Your task to perform on an android device: open a bookmark in the chrome app Image 0: 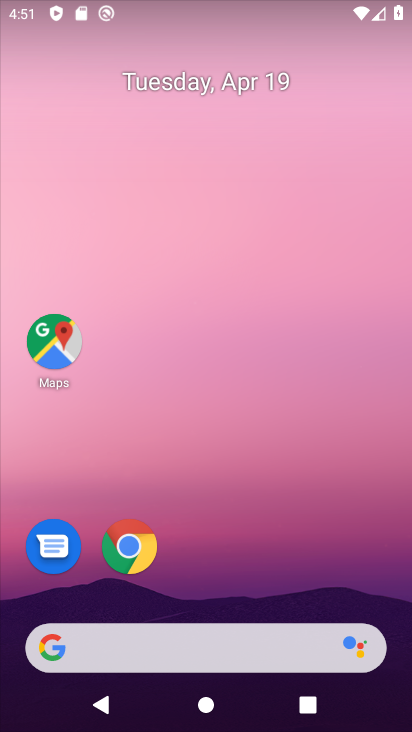
Step 0: drag from (276, 457) to (321, 33)
Your task to perform on an android device: open a bookmark in the chrome app Image 1: 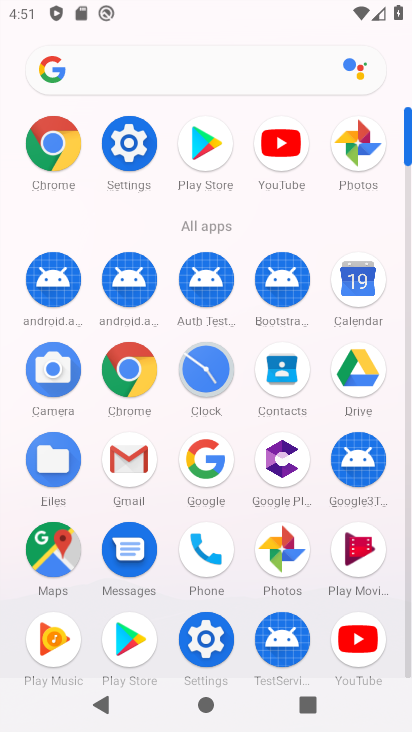
Step 1: click (42, 156)
Your task to perform on an android device: open a bookmark in the chrome app Image 2: 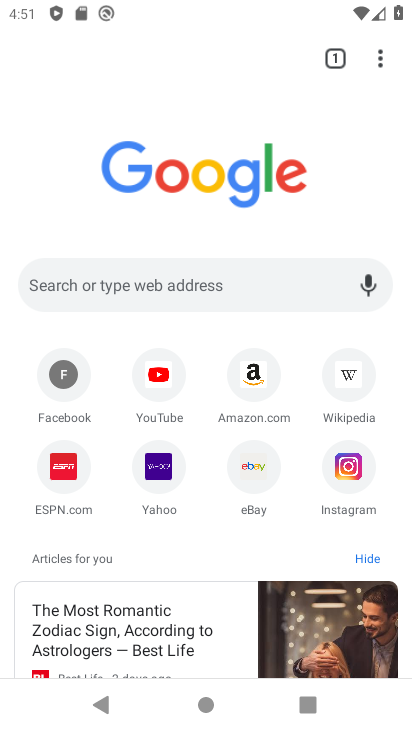
Step 2: drag from (374, 48) to (166, 230)
Your task to perform on an android device: open a bookmark in the chrome app Image 3: 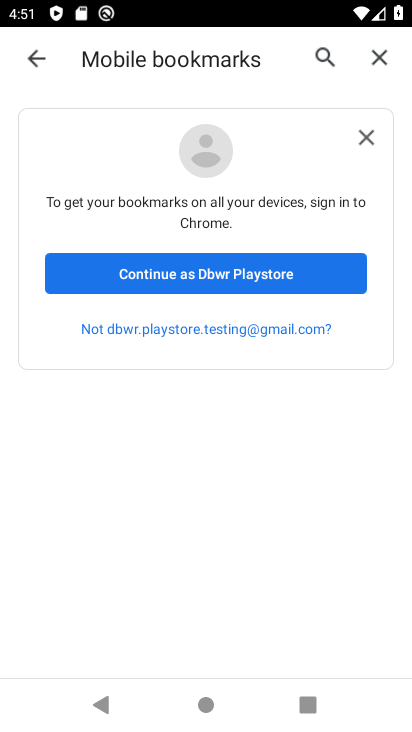
Step 3: click (226, 280)
Your task to perform on an android device: open a bookmark in the chrome app Image 4: 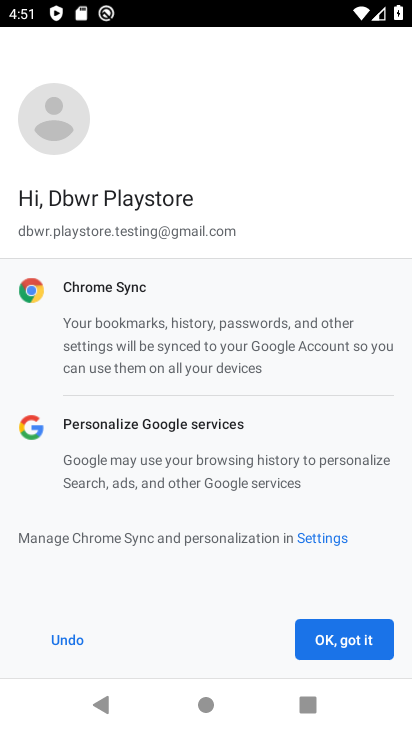
Step 4: click (321, 649)
Your task to perform on an android device: open a bookmark in the chrome app Image 5: 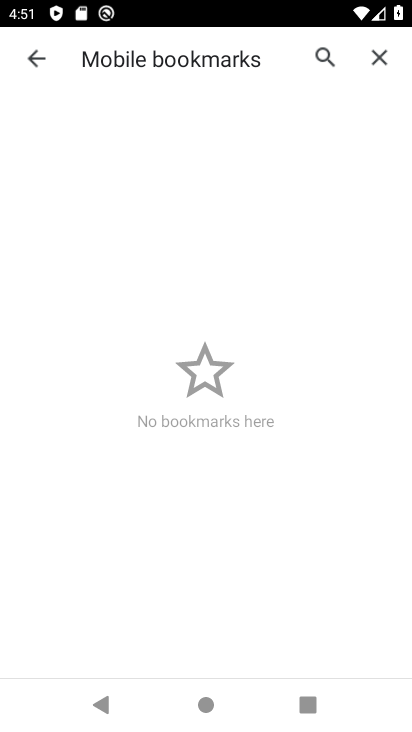
Step 5: task complete